Your task to perform on an android device: Open notification settings Image 0: 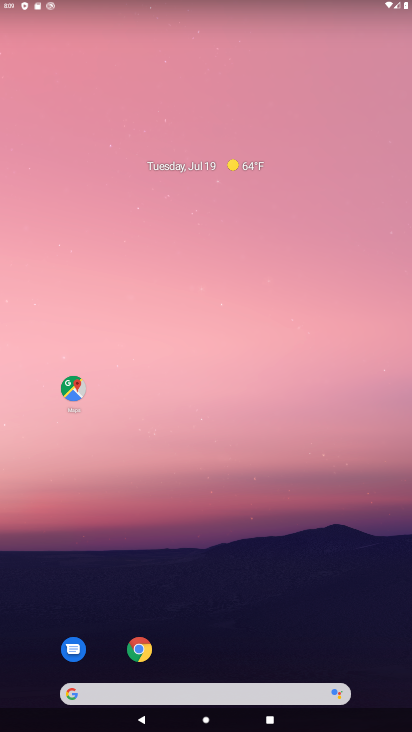
Step 0: drag from (200, 645) to (204, 102)
Your task to perform on an android device: Open notification settings Image 1: 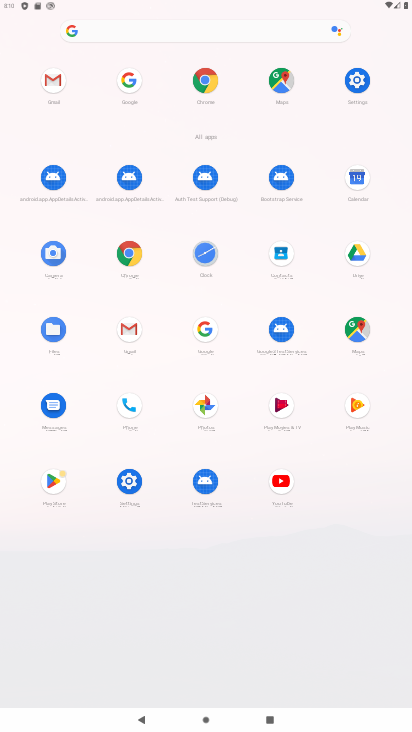
Step 1: click (347, 88)
Your task to perform on an android device: Open notification settings Image 2: 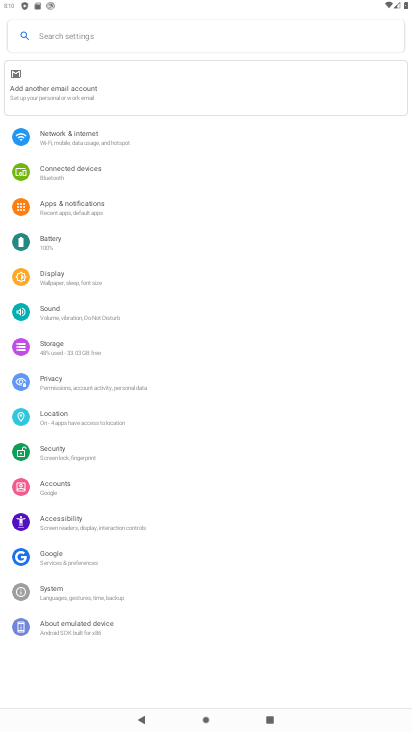
Step 2: click (101, 200)
Your task to perform on an android device: Open notification settings Image 3: 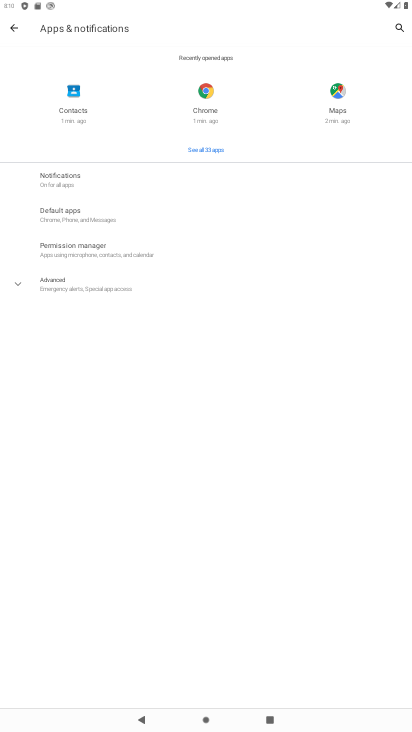
Step 3: click (93, 185)
Your task to perform on an android device: Open notification settings Image 4: 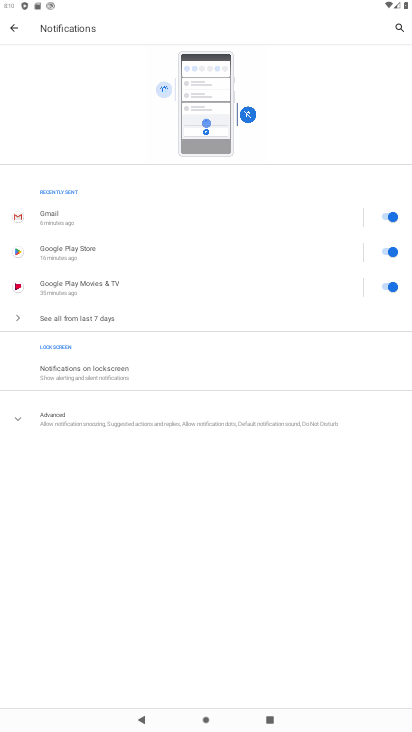
Step 4: task complete